Your task to perform on an android device: change notifications settings Image 0: 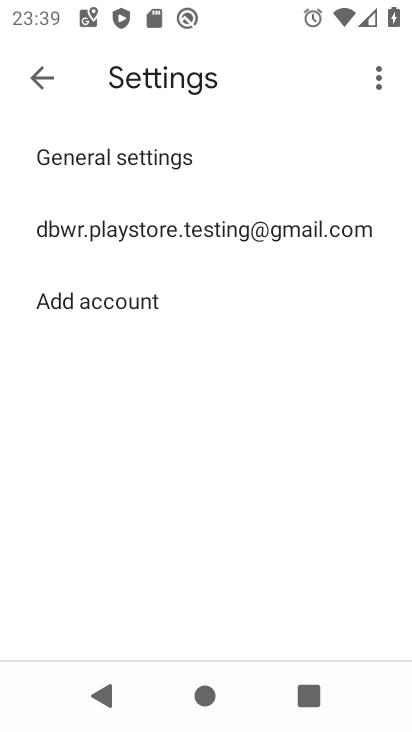
Step 0: press back button
Your task to perform on an android device: change notifications settings Image 1: 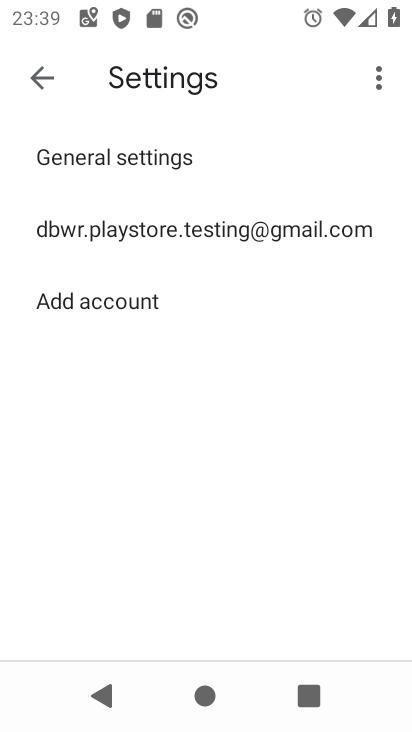
Step 1: press back button
Your task to perform on an android device: change notifications settings Image 2: 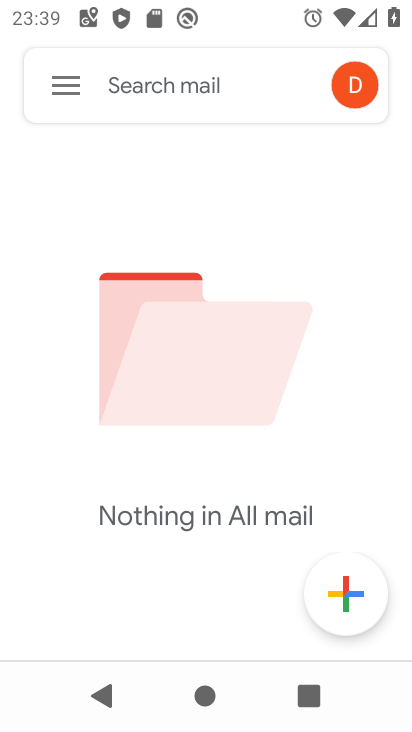
Step 2: press back button
Your task to perform on an android device: change notifications settings Image 3: 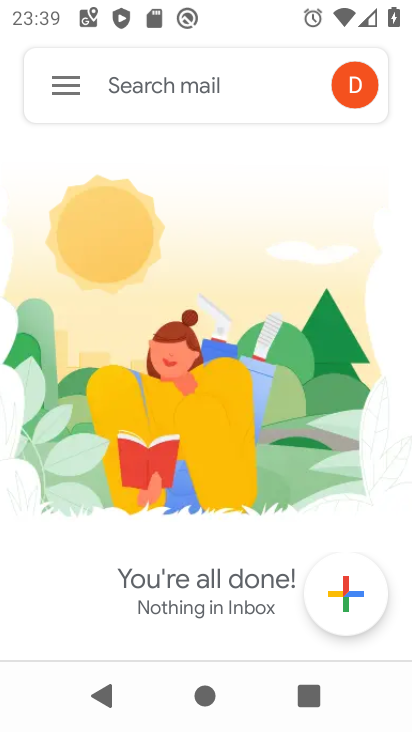
Step 3: press back button
Your task to perform on an android device: change notifications settings Image 4: 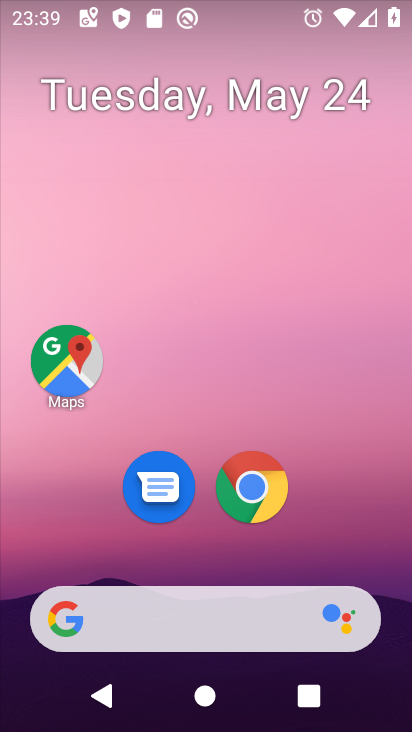
Step 4: drag from (156, 566) to (261, 78)
Your task to perform on an android device: change notifications settings Image 5: 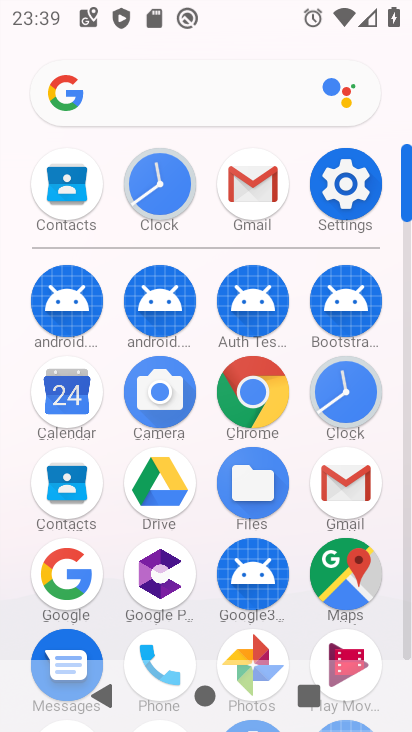
Step 5: click (353, 173)
Your task to perform on an android device: change notifications settings Image 6: 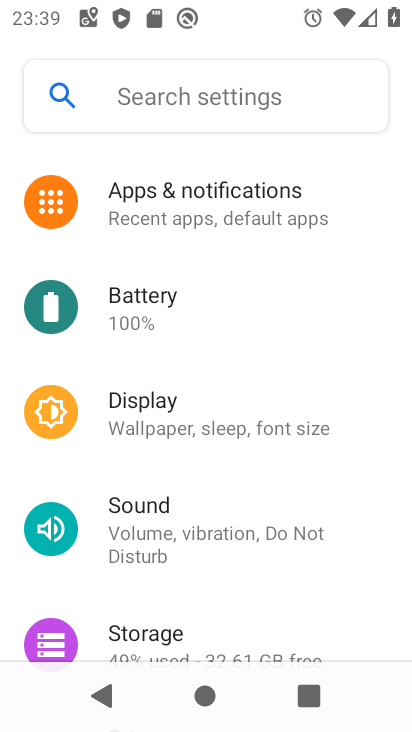
Step 6: click (282, 196)
Your task to perform on an android device: change notifications settings Image 7: 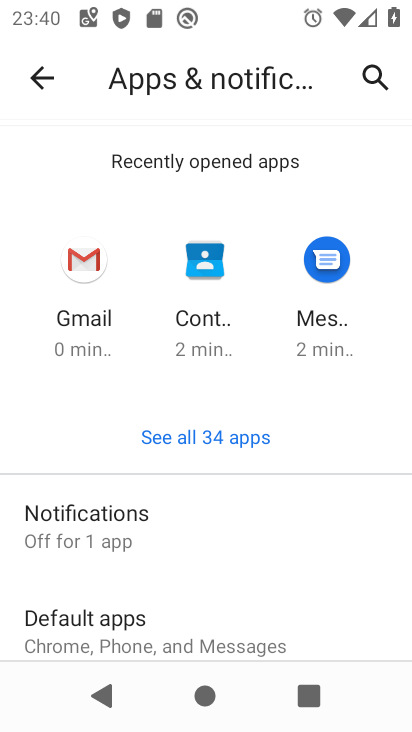
Step 7: click (169, 514)
Your task to perform on an android device: change notifications settings Image 8: 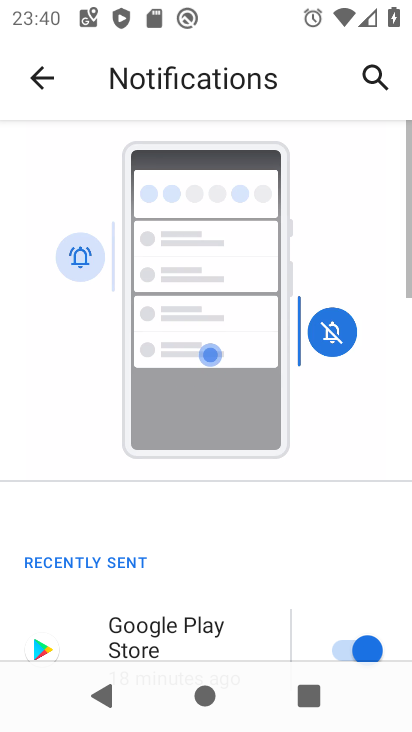
Step 8: drag from (142, 581) to (259, 20)
Your task to perform on an android device: change notifications settings Image 9: 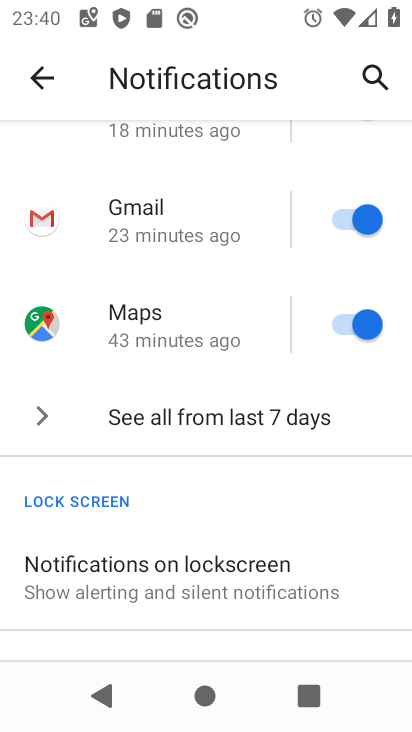
Step 9: drag from (198, 573) to (261, 87)
Your task to perform on an android device: change notifications settings Image 10: 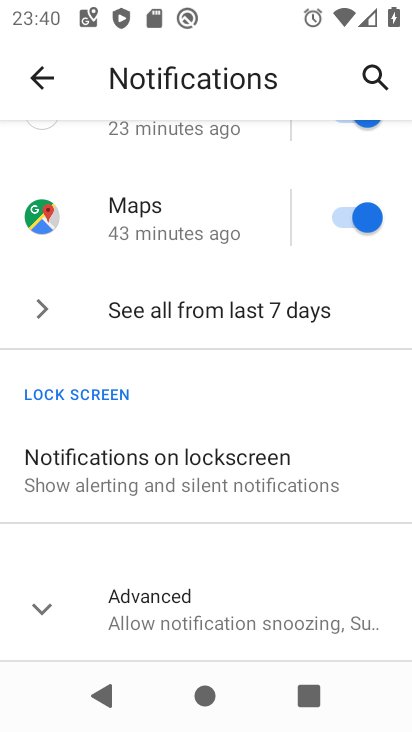
Step 10: click (181, 607)
Your task to perform on an android device: change notifications settings Image 11: 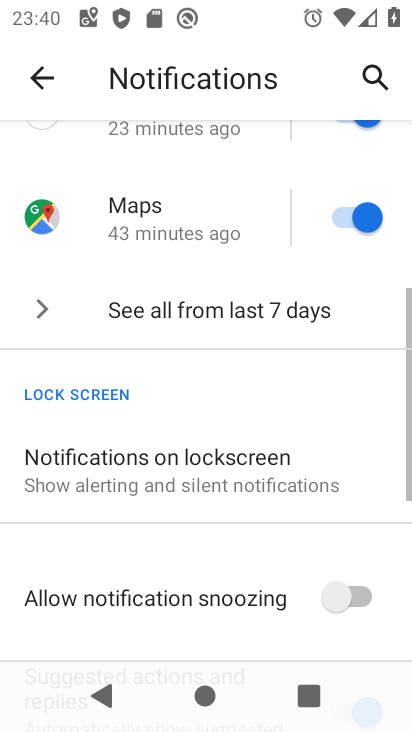
Step 11: drag from (181, 607) to (251, 238)
Your task to perform on an android device: change notifications settings Image 12: 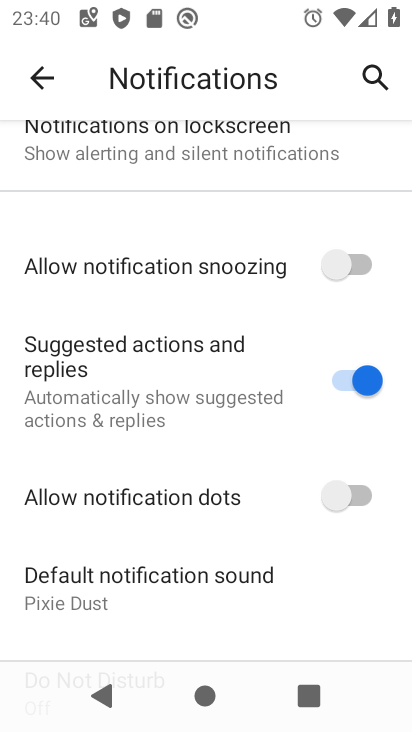
Step 12: click (333, 264)
Your task to perform on an android device: change notifications settings Image 13: 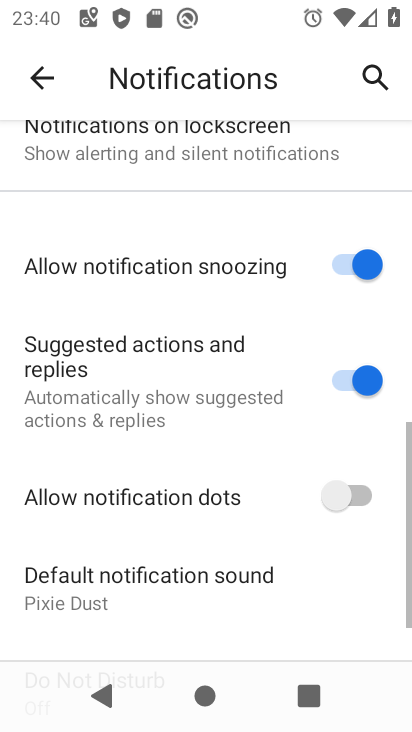
Step 13: task complete